Your task to perform on an android device: Open the phone app and click the voicemail tab. Image 0: 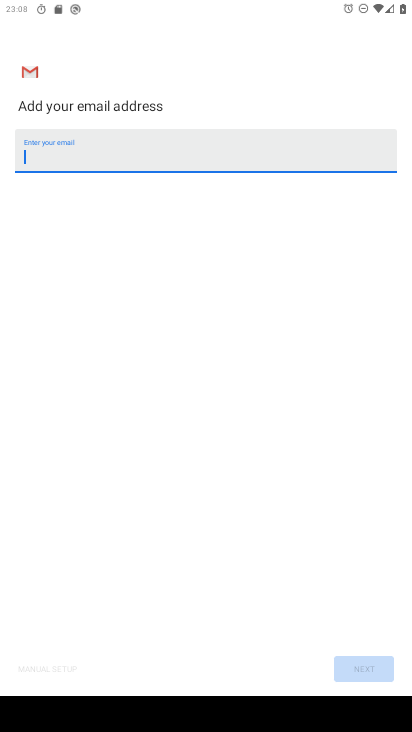
Step 0: click (182, 278)
Your task to perform on an android device: Open the phone app and click the voicemail tab. Image 1: 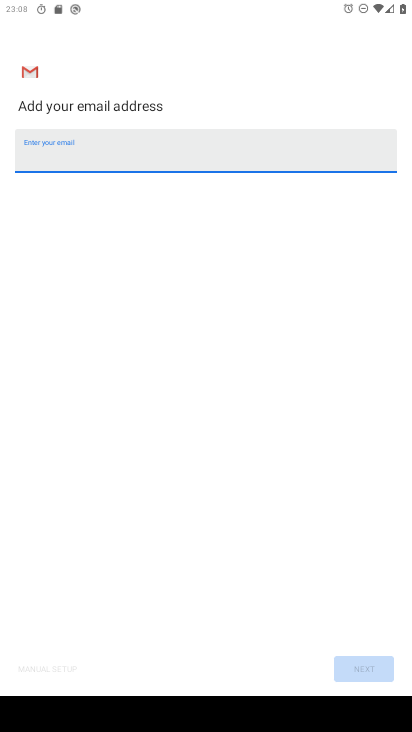
Step 1: press back button
Your task to perform on an android device: Open the phone app and click the voicemail tab. Image 2: 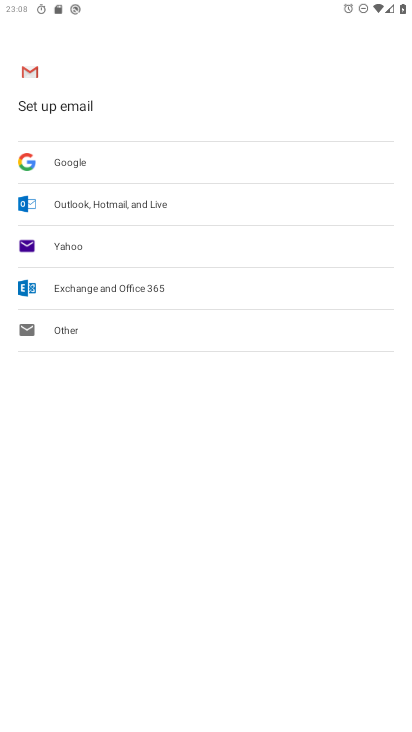
Step 2: press home button
Your task to perform on an android device: Open the phone app and click the voicemail tab. Image 3: 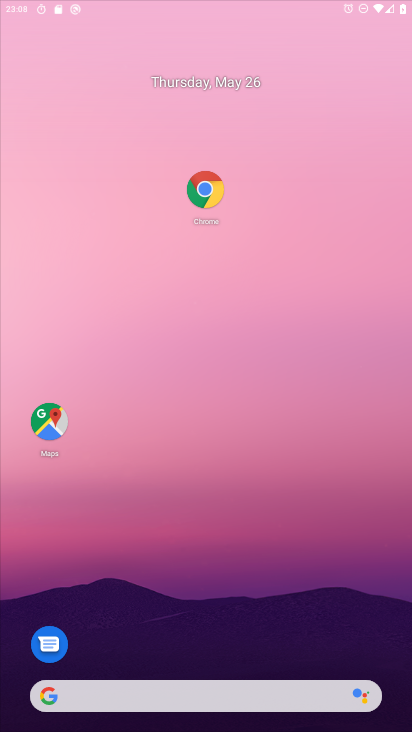
Step 3: drag from (303, 579) to (406, 112)
Your task to perform on an android device: Open the phone app and click the voicemail tab. Image 4: 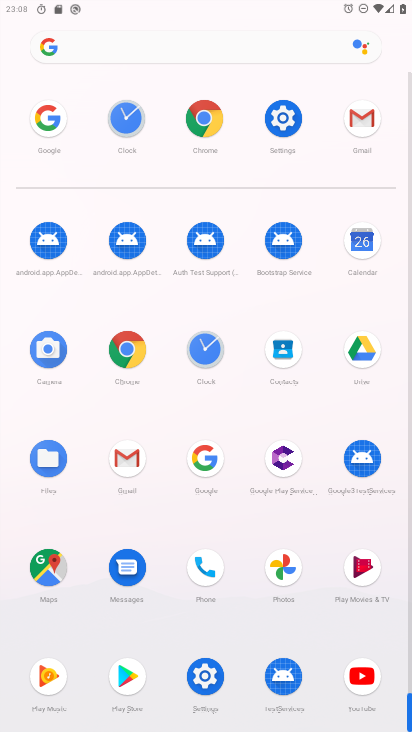
Step 4: click (206, 564)
Your task to perform on an android device: Open the phone app and click the voicemail tab. Image 5: 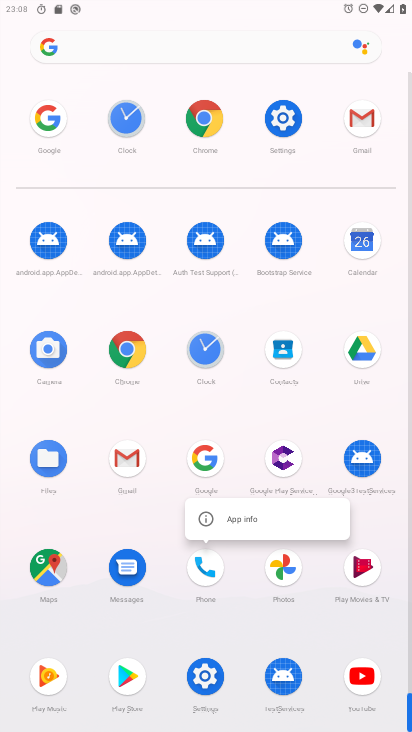
Step 5: click (229, 526)
Your task to perform on an android device: Open the phone app and click the voicemail tab. Image 6: 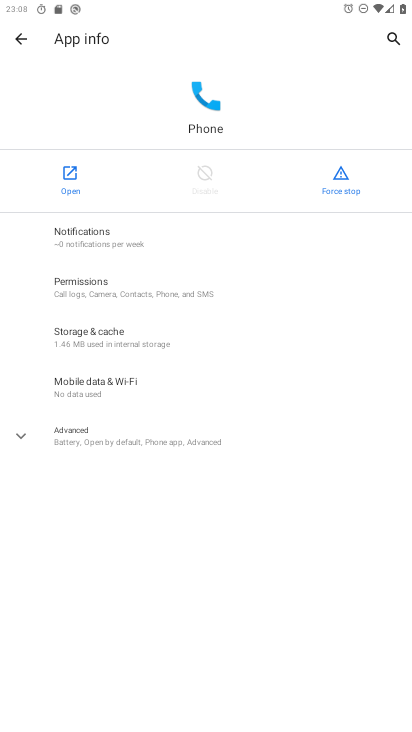
Step 6: click (64, 167)
Your task to perform on an android device: Open the phone app and click the voicemail tab. Image 7: 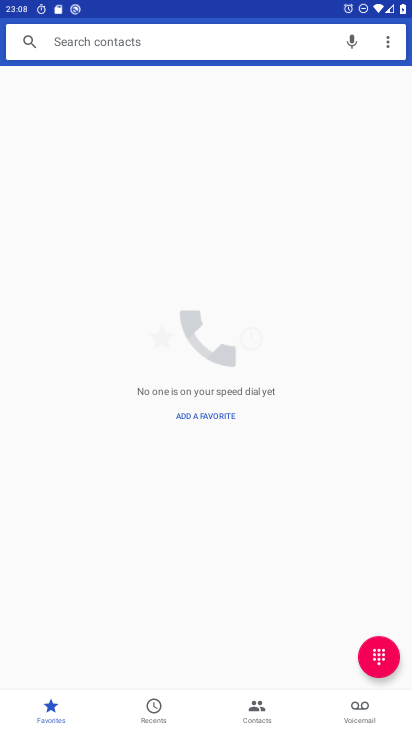
Step 7: drag from (231, 400) to (265, 304)
Your task to perform on an android device: Open the phone app and click the voicemail tab. Image 8: 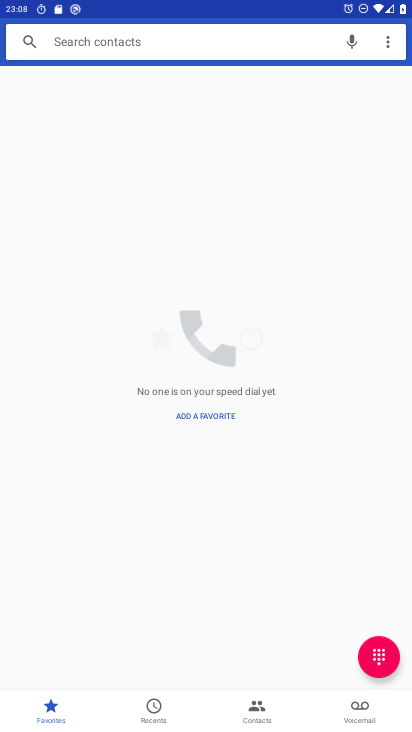
Step 8: click (348, 712)
Your task to perform on an android device: Open the phone app and click the voicemail tab. Image 9: 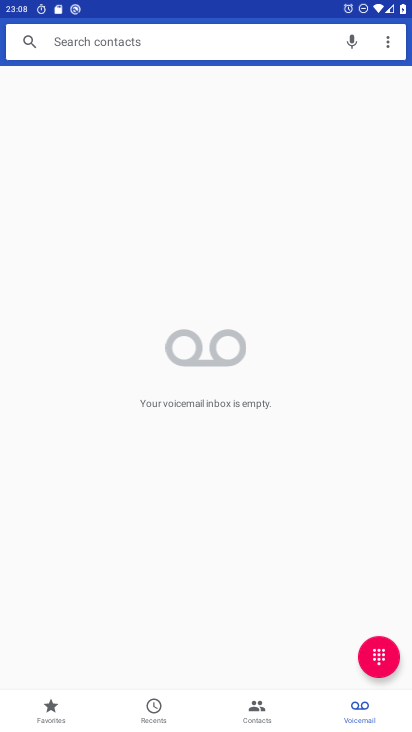
Step 9: task complete